Your task to perform on an android device: install app "YouTube Kids" Image 0: 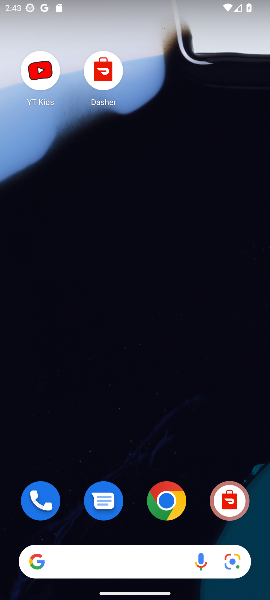
Step 0: drag from (141, 454) to (134, 0)
Your task to perform on an android device: install app "YouTube Kids" Image 1: 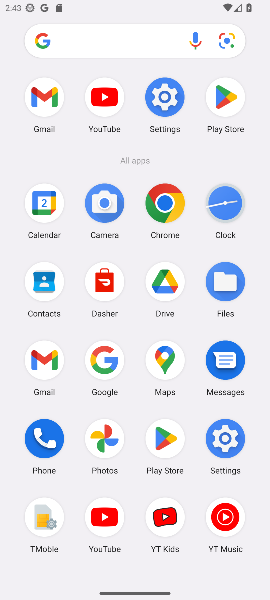
Step 1: click (221, 97)
Your task to perform on an android device: install app "YouTube Kids" Image 2: 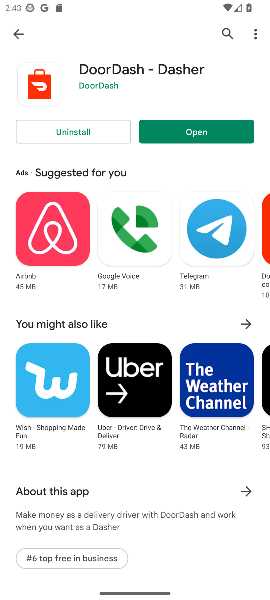
Step 2: click (224, 29)
Your task to perform on an android device: install app "YouTube Kids" Image 3: 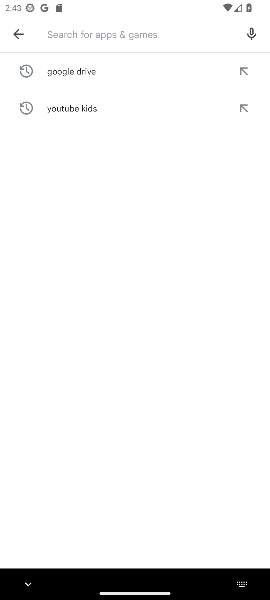
Step 3: type "YouTube Kids"
Your task to perform on an android device: install app "YouTube Kids" Image 4: 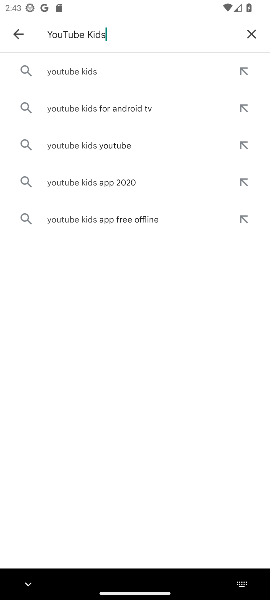
Step 4: click (75, 70)
Your task to perform on an android device: install app "YouTube Kids" Image 5: 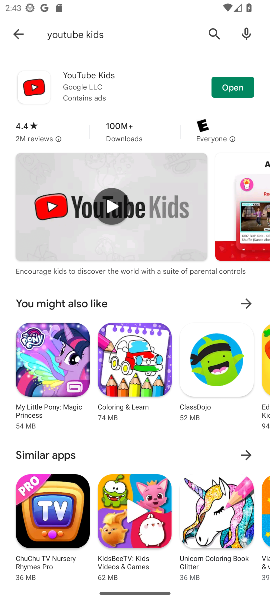
Step 5: task complete